Your task to perform on an android device: turn on priority inbox in the gmail app Image 0: 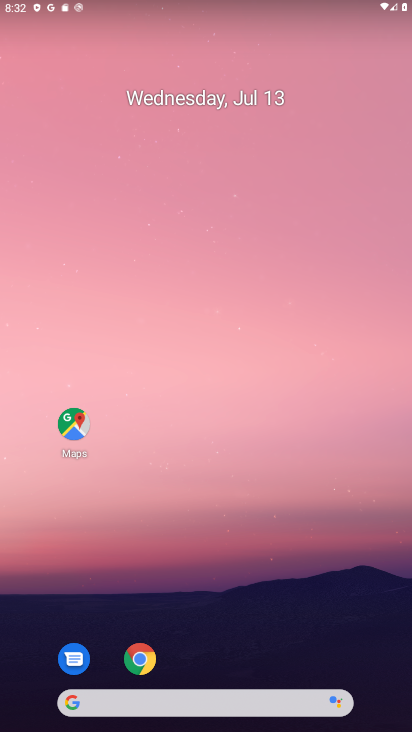
Step 0: drag from (247, 655) to (254, 284)
Your task to perform on an android device: turn on priority inbox in the gmail app Image 1: 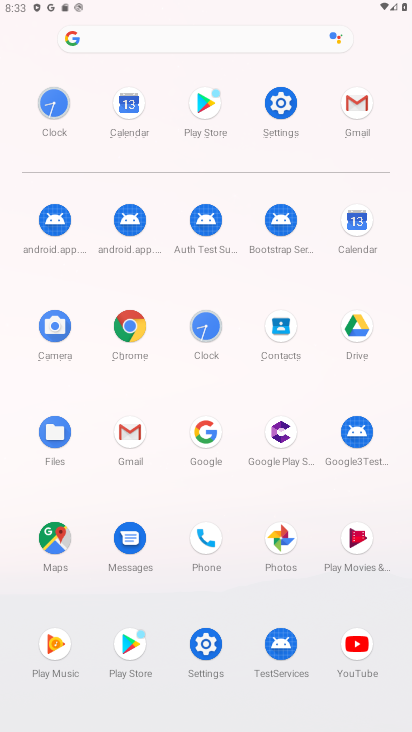
Step 1: click (366, 109)
Your task to perform on an android device: turn on priority inbox in the gmail app Image 2: 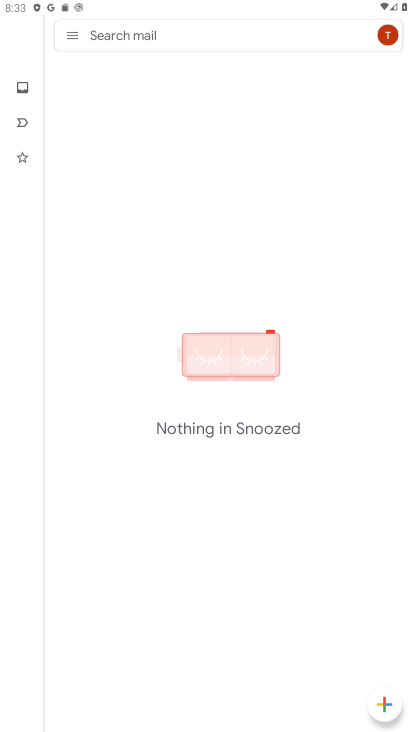
Step 2: click (76, 43)
Your task to perform on an android device: turn on priority inbox in the gmail app Image 3: 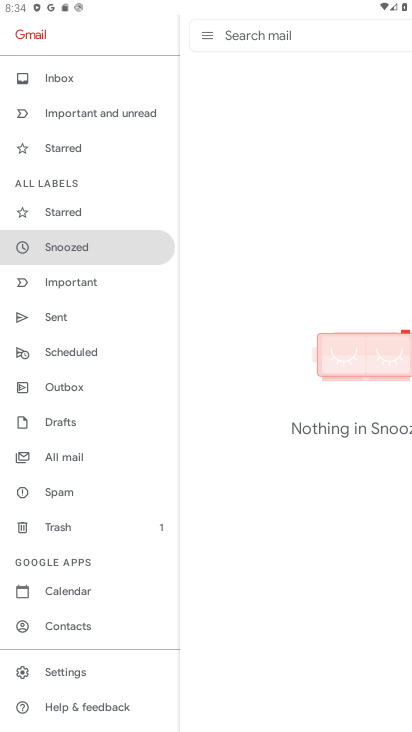
Step 3: click (89, 657)
Your task to perform on an android device: turn on priority inbox in the gmail app Image 4: 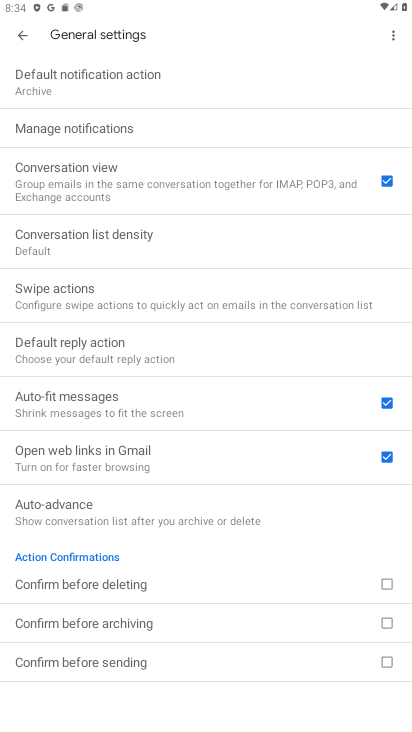
Step 4: task complete